Your task to perform on an android device: Open settings on Google Maps Image 0: 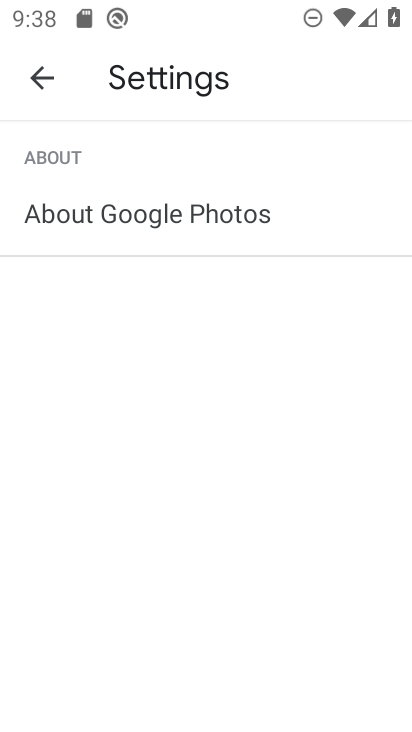
Step 0: press home button
Your task to perform on an android device: Open settings on Google Maps Image 1: 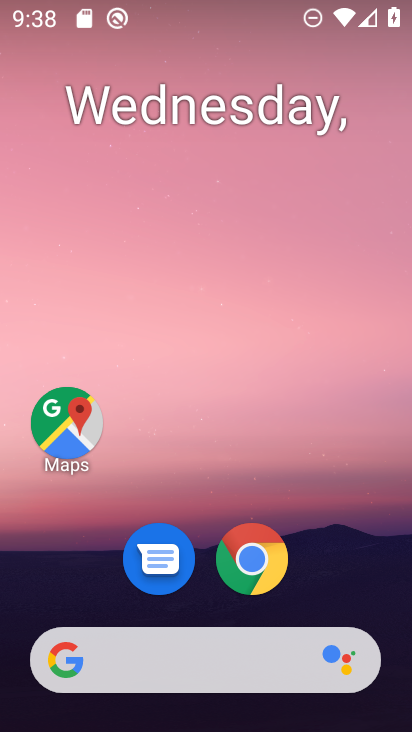
Step 1: drag from (385, 591) to (394, 240)
Your task to perform on an android device: Open settings on Google Maps Image 2: 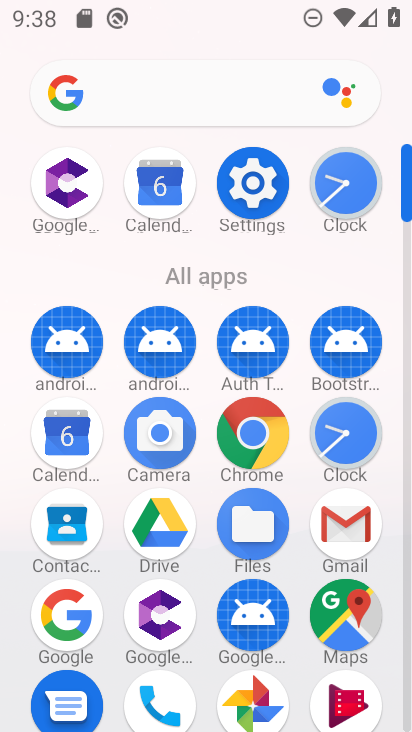
Step 2: click (356, 611)
Your task to perform on an android device: Open settings on Google Maps Image 3: 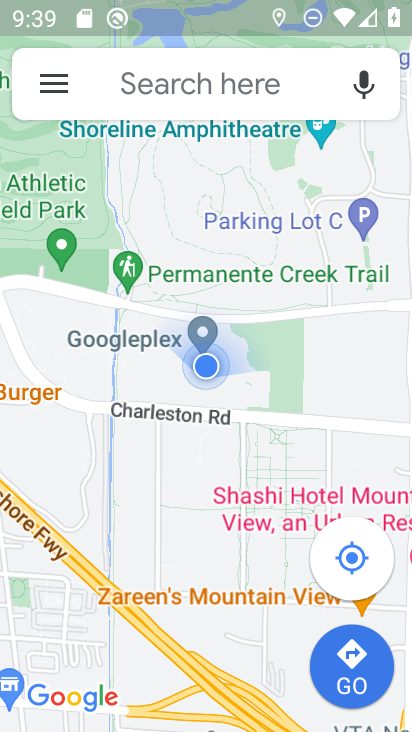
Step 3: click (58, 88)
Your task to perform on an android device: Open settings on Google Maps Image 4: 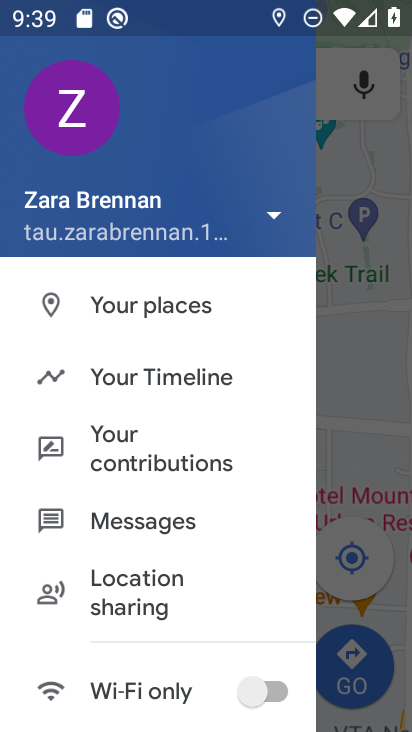
Step 4: drag from (256, 521) to (273, 392)
Your task to perform on an android device: Open settings on Google Maps Image 5: 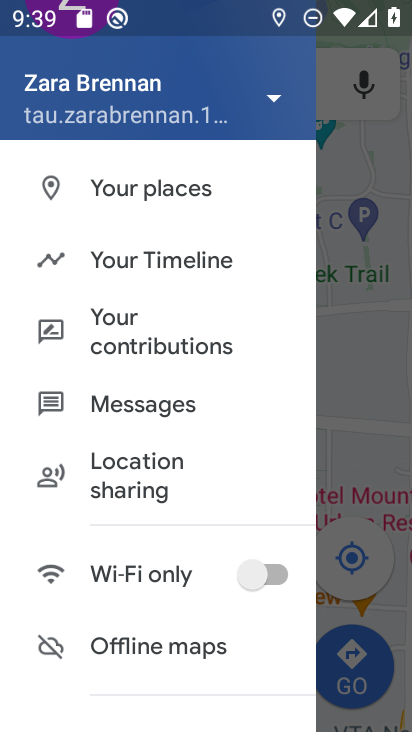
Step 5: drag from (220, 572) to (239, 380)
Your task to perform on an android device: Open settings on Google Maps Image 6: 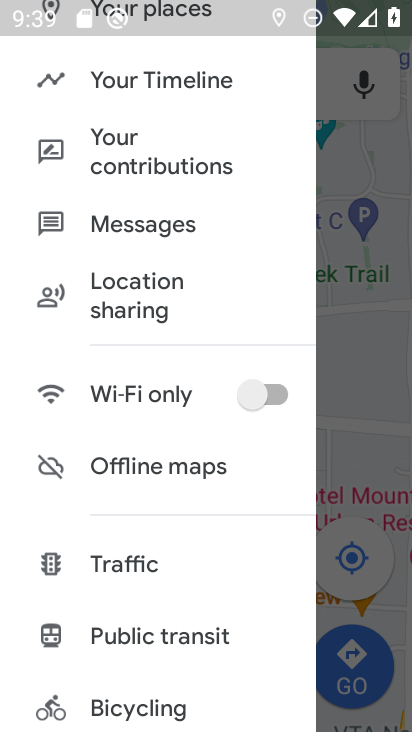
Step 6: drag from (226, 662) to (230, 377)
Your task to perform on an android device: Open settings on Google Maps Image 7: 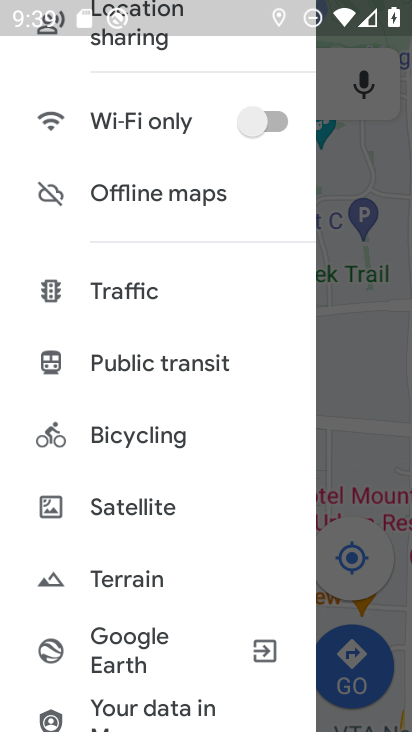
Step 7: drag from (233, 604) to (234, 414)
Your task to perform on an android device: Open settings on Google Maps Image 8: 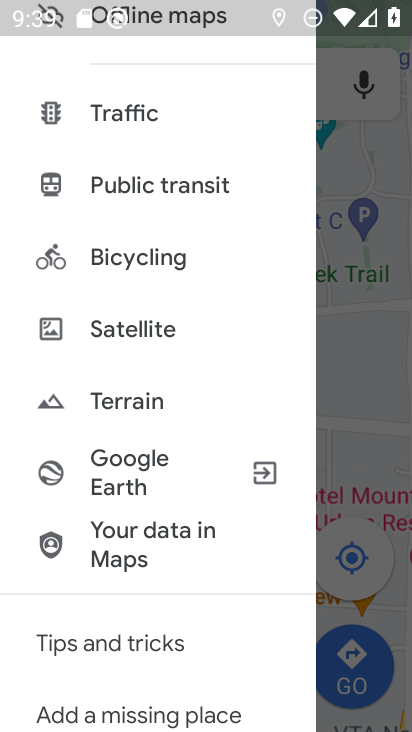
Step 8: drag from (230, 653) to (235, 399)
Your task to perform on an android device: Open settings on Google Maps Image 9: 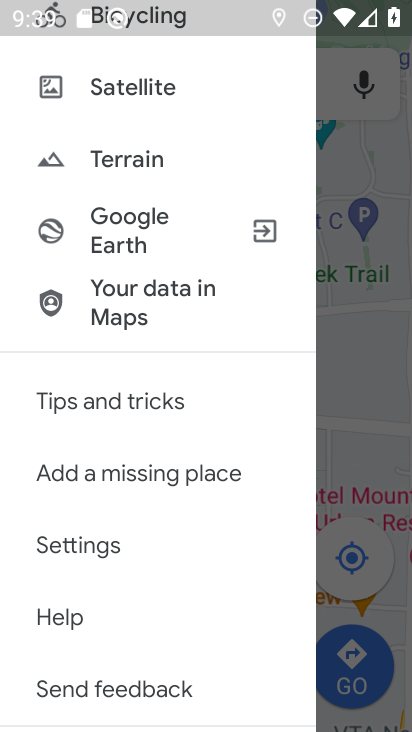
Step 9: click (123, 557)
Your task to perform on an android device: Open settings on Google Maps Image 10: 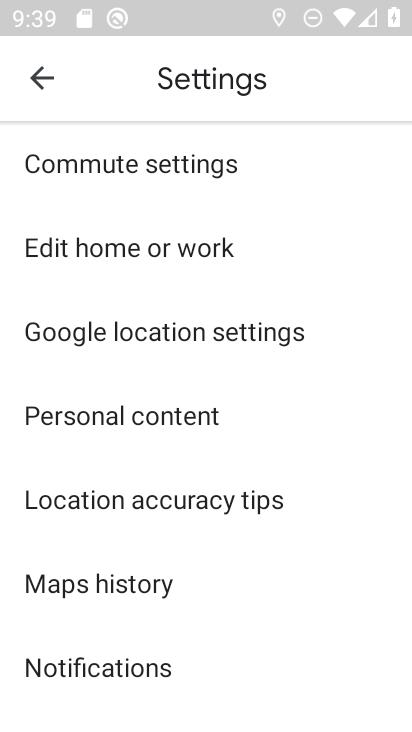
Step 10: task complete